Your task to perform on an android device: clear all cookies in the chrome app Image 0: 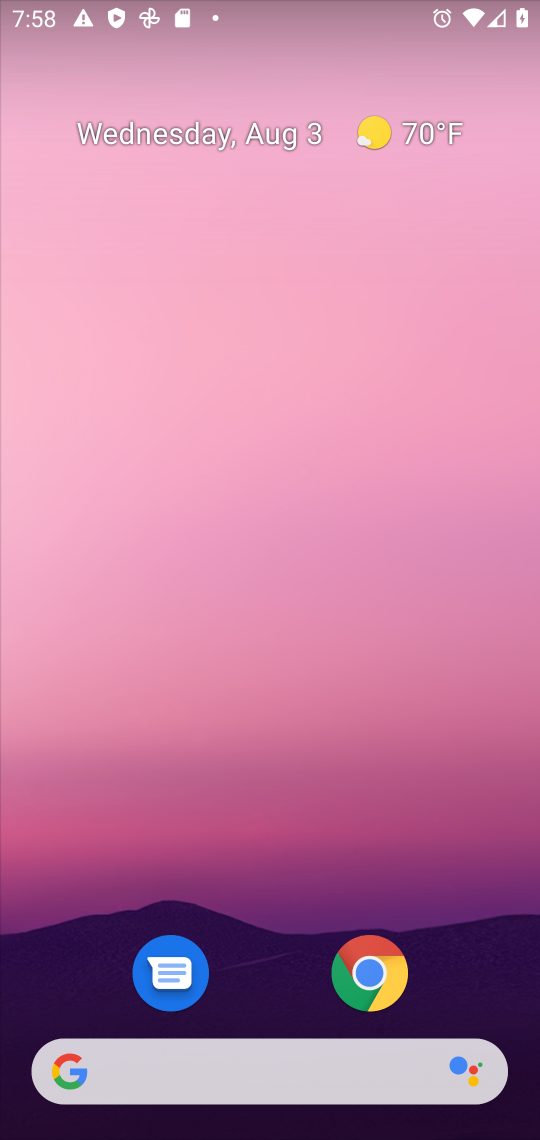
Step 0: click (376, 975)
Your task to perform on an android device: clear all cookies in the chrome app Image 1: 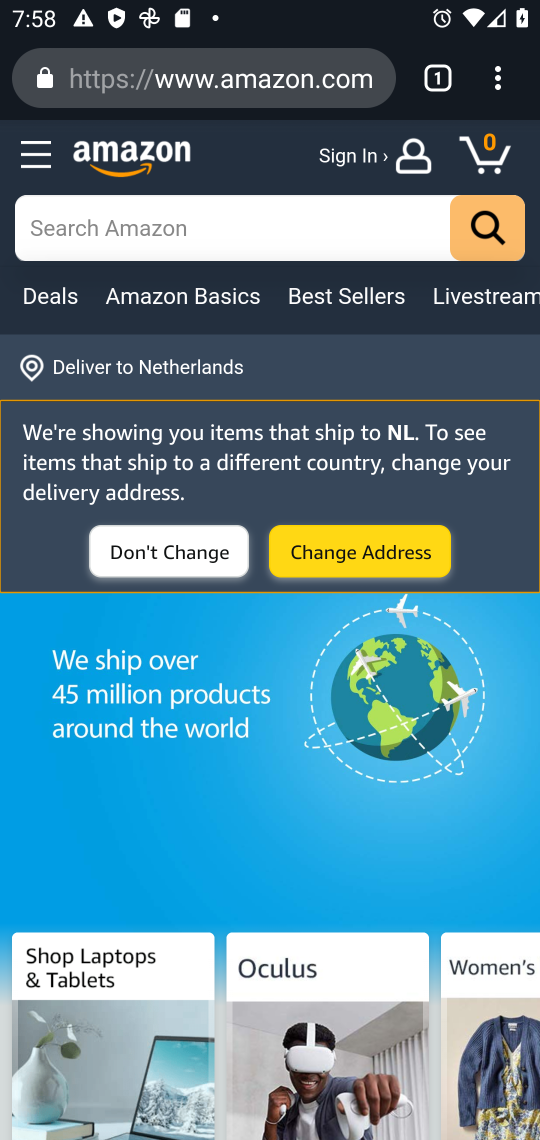
Step 1: click (499, 98)
Your task to perform on an android device: clear all cookies in the chrome app Image 2: 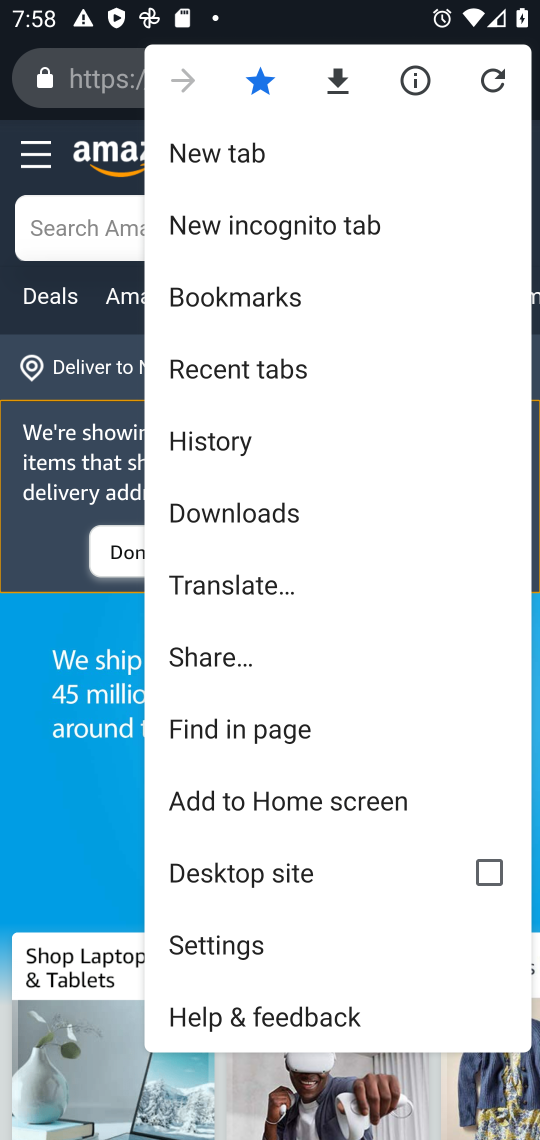
Step 2: click (241, 449)
Your task to perform on an android device: clear all cookies in the chrome app Image 3: 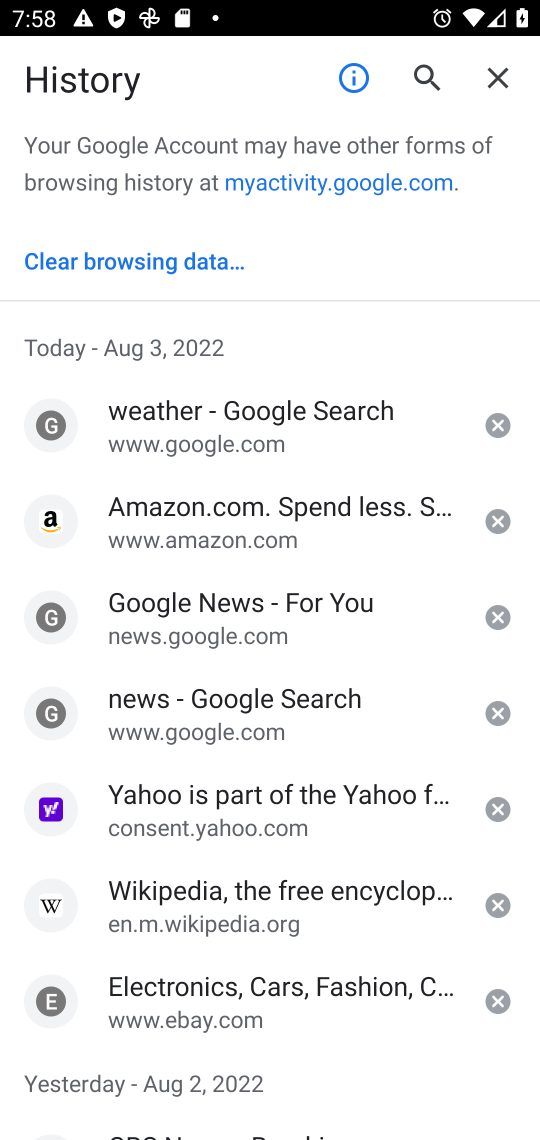
Step 3: click (201, 256)
Your task to perform on an android device: clear all cookies in the chrome app Image 4: 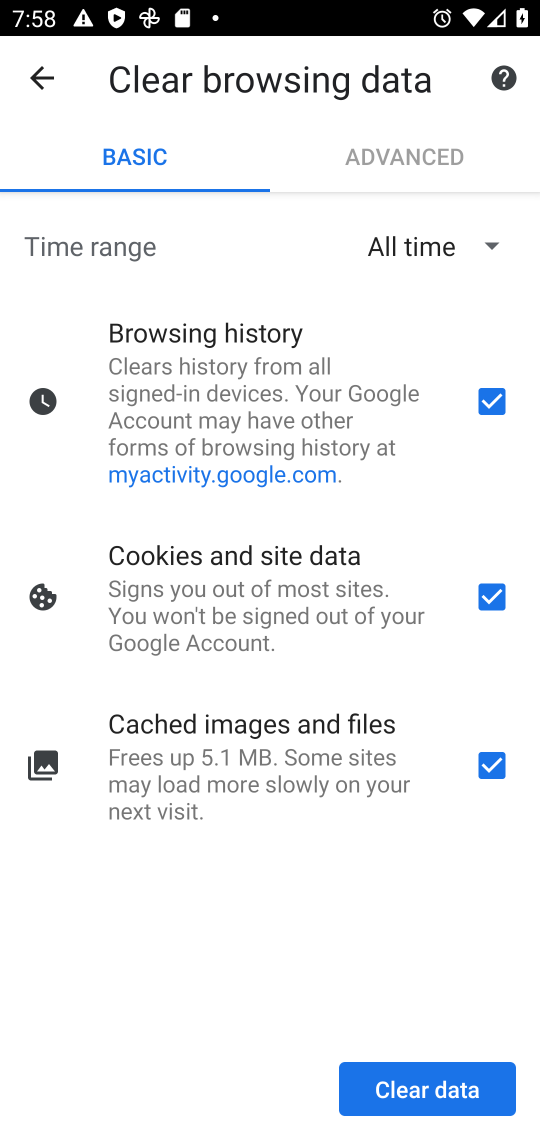
Step 4: click (491, 401)
Your task to perform on an android device: clear all cookies in the chrome app Image 5: 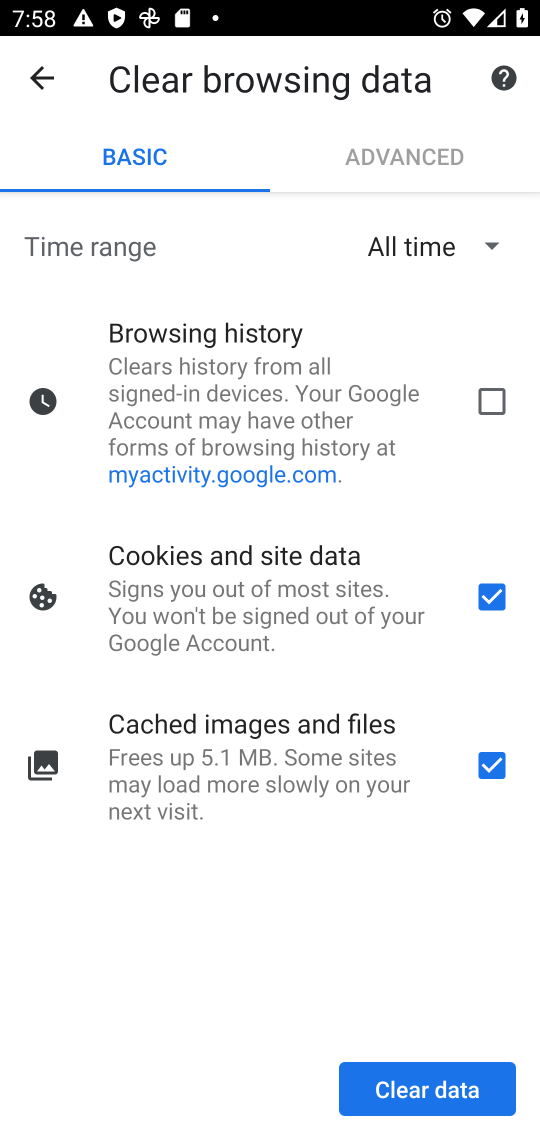
Step 5: click (491, 781)
Your task to perform on an android device: clear all cookies in the chrome app Image 6: 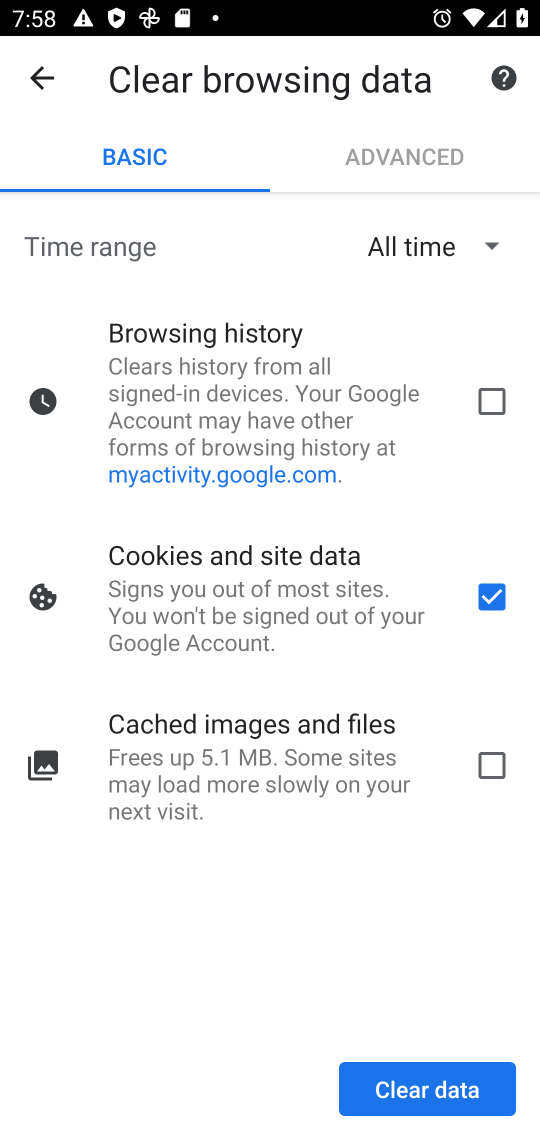
Step 6: click (389, 1081)
Your task to perform on an android device: clear all cookies in the chrome app Image 7: 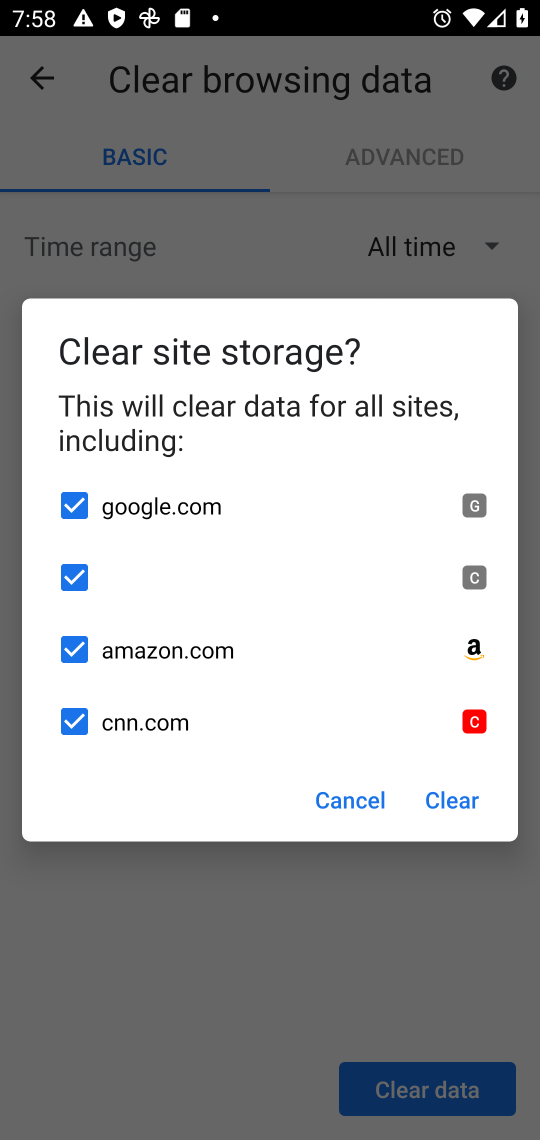
Step 7: click (464, 804)
Your task to perform on an android device: clear all cookies in the chrome app Image 8: 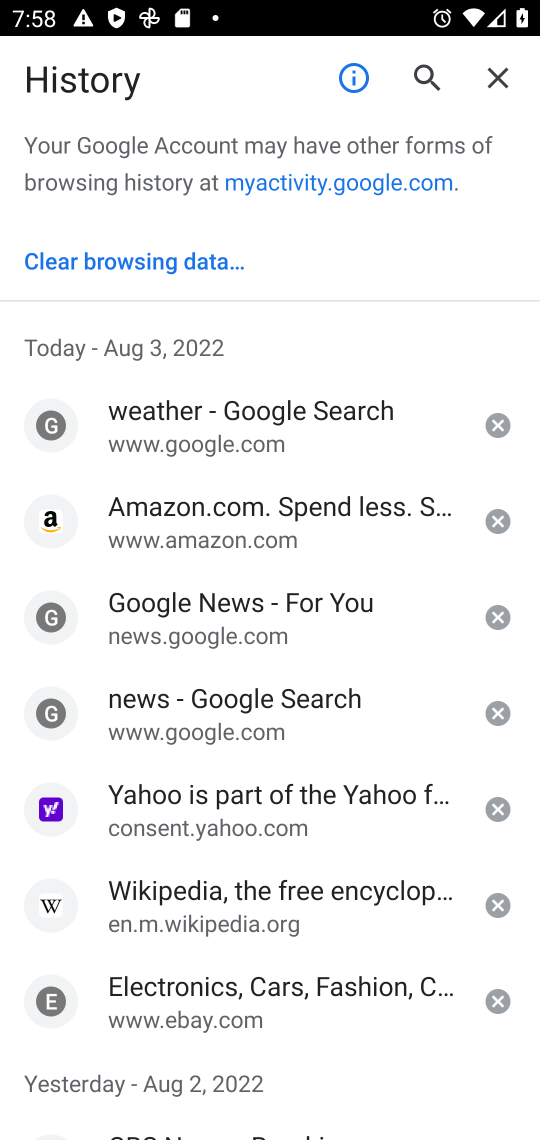
Step 8: task complete